Your task to perform on an android device: see tabs open on other devices in the chrome app Image 0: 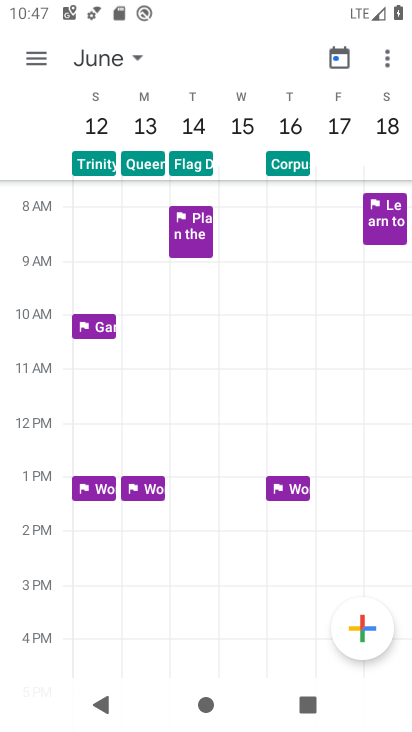
Step 0: press home button
Your task to perform on an android device: see tabs open on other devices in the chrome app Image 1: 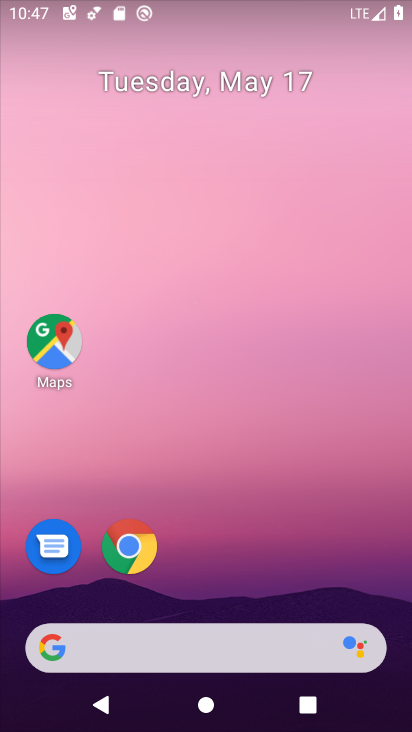
Step 1: click (142, 553)
Your task to perform on an android device: see tabs open on other devices in the chrome app Image 2: 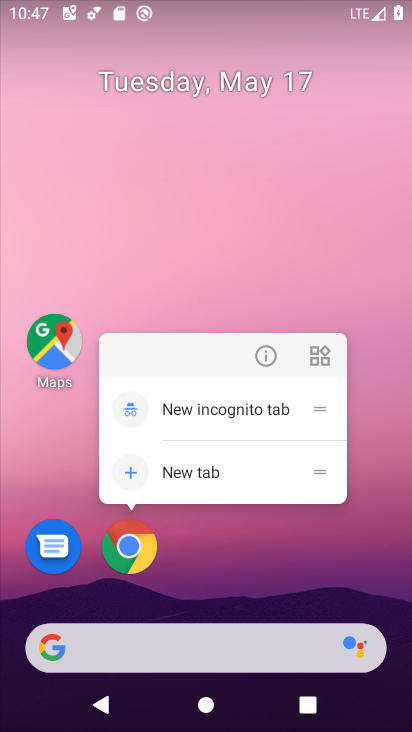
Step 2: click (147, 554)
Your task to perform on an android device: see tabs open on other devices in the chrome app Image 3: 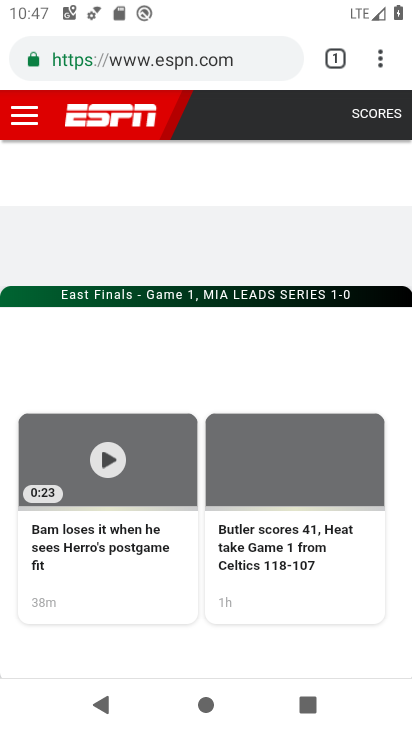
Step 3: click (382, 61)
Your task to perform on an android device: see tabs open on other devices in the chrome app Image 4: 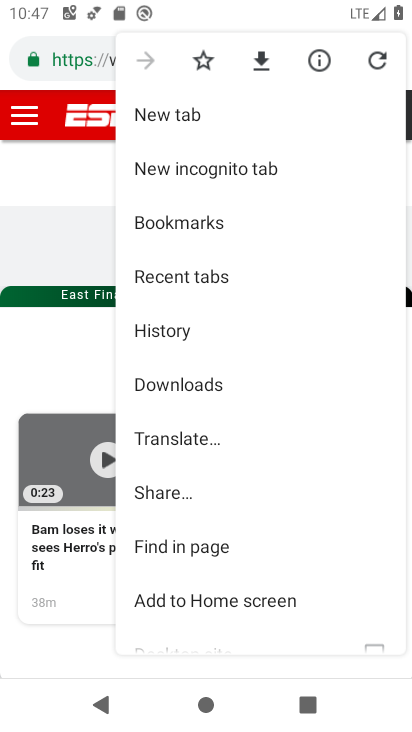
Step 4: click (201, 274)
Your task to perform on an android device: see tabs open on other devices in the chrome app Image 5: 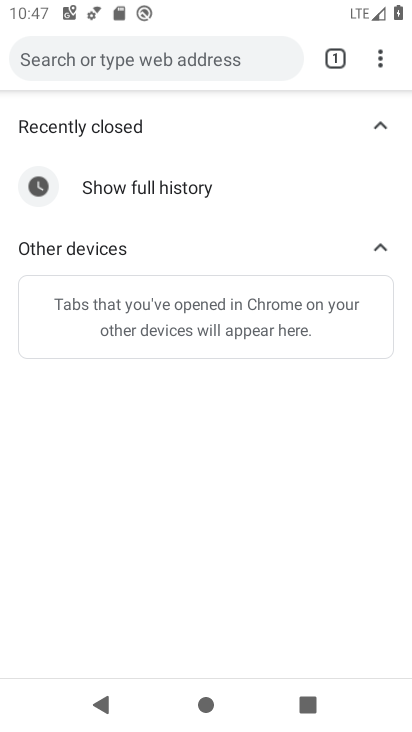
Step 5: task complete